Your task to perform on an android device: choose inbox layout in the gmail app Image 0: 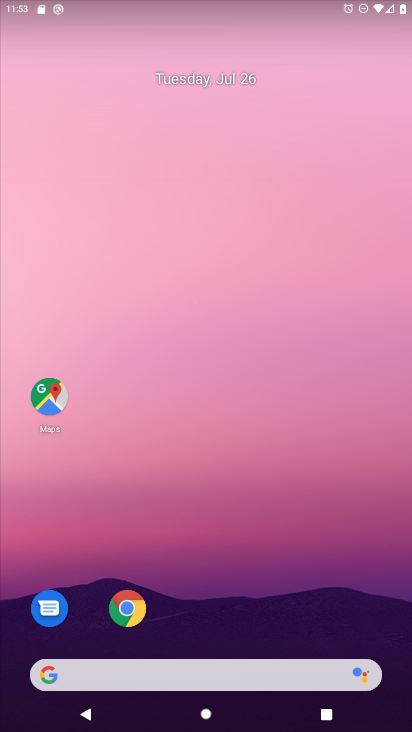
Step 0: drag from (312, 605) to (310, 113)
Your task to perform on an android device: choose inbox layout in the gmail app Image 1: 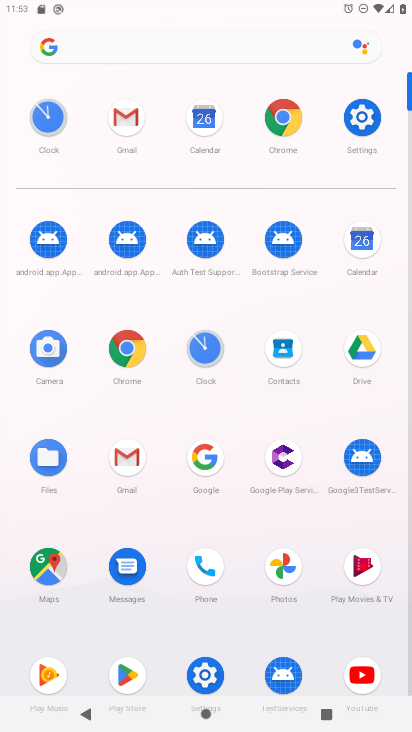
Step 1: click (131, 121)
Your task to perform on an android device: choose inbox layout in the gmail app Image 2: 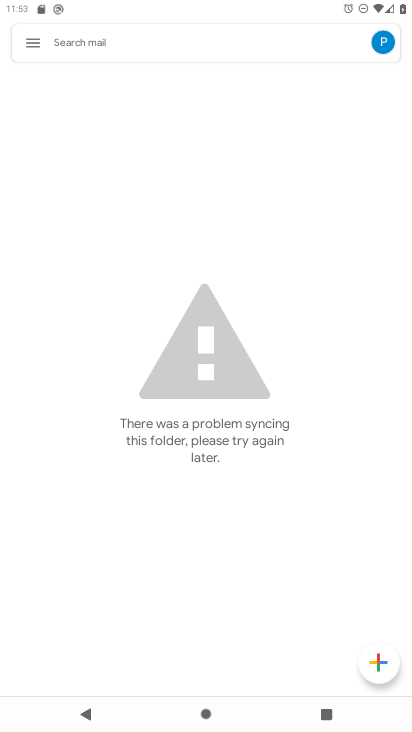
Step 2: click (31, 44)
Your task to perform on an android device: choose inbox layout in the gmail app Image 3: 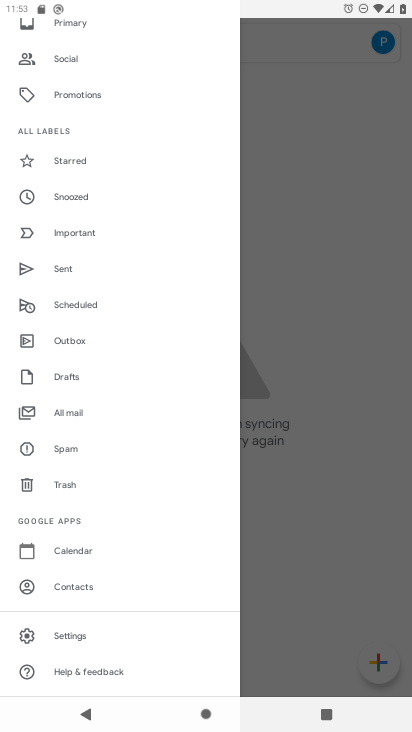
Step 3: click (90, 633)
Your task to perform on an android device: choose inbox layout in the gmail app Image 4: 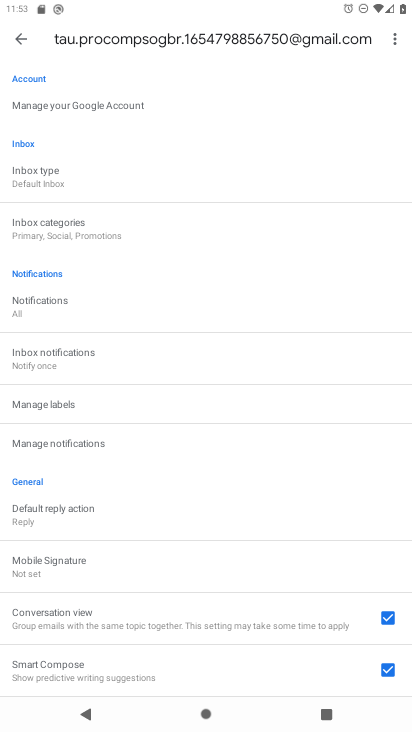
Step 4: click (54, 172)
Your task to perform on an android device: choose inbox layout in the gmail app Image 5: 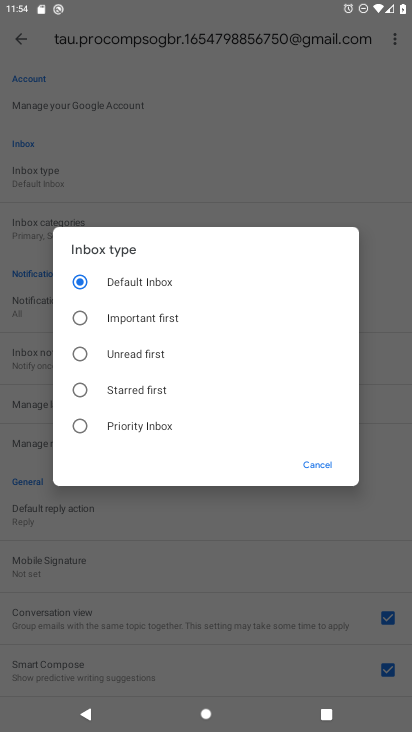
Step 5: task complete